Your task to perform on an android device: allow notifications from all sites in the chrome app Image 0: 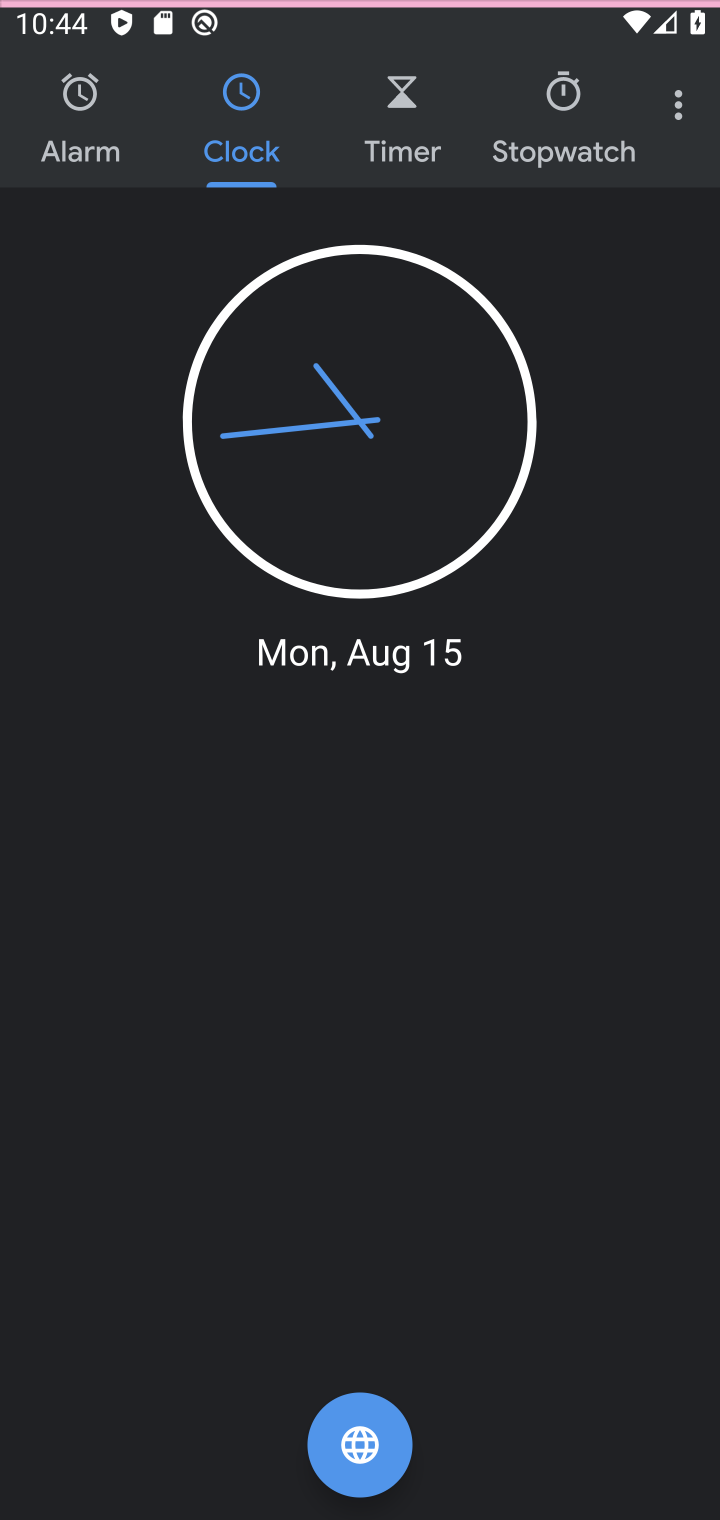
Step 0: press home button
Your task to perform on an android device: allow notifications from all sites in the chrome app Image 1: 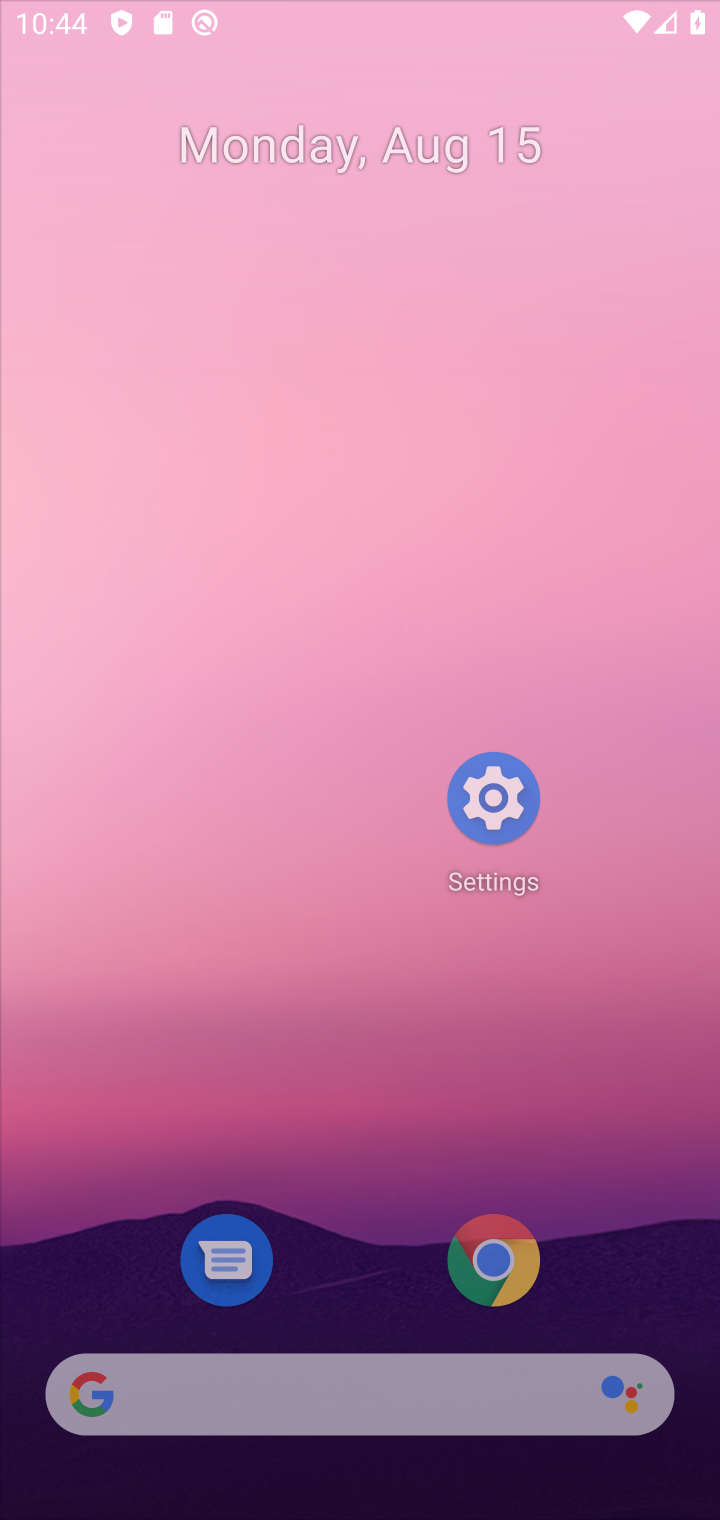
Step 1: press home button
Your task to perform on an android device: allow notifications from all sites in the chrome app Image 2: 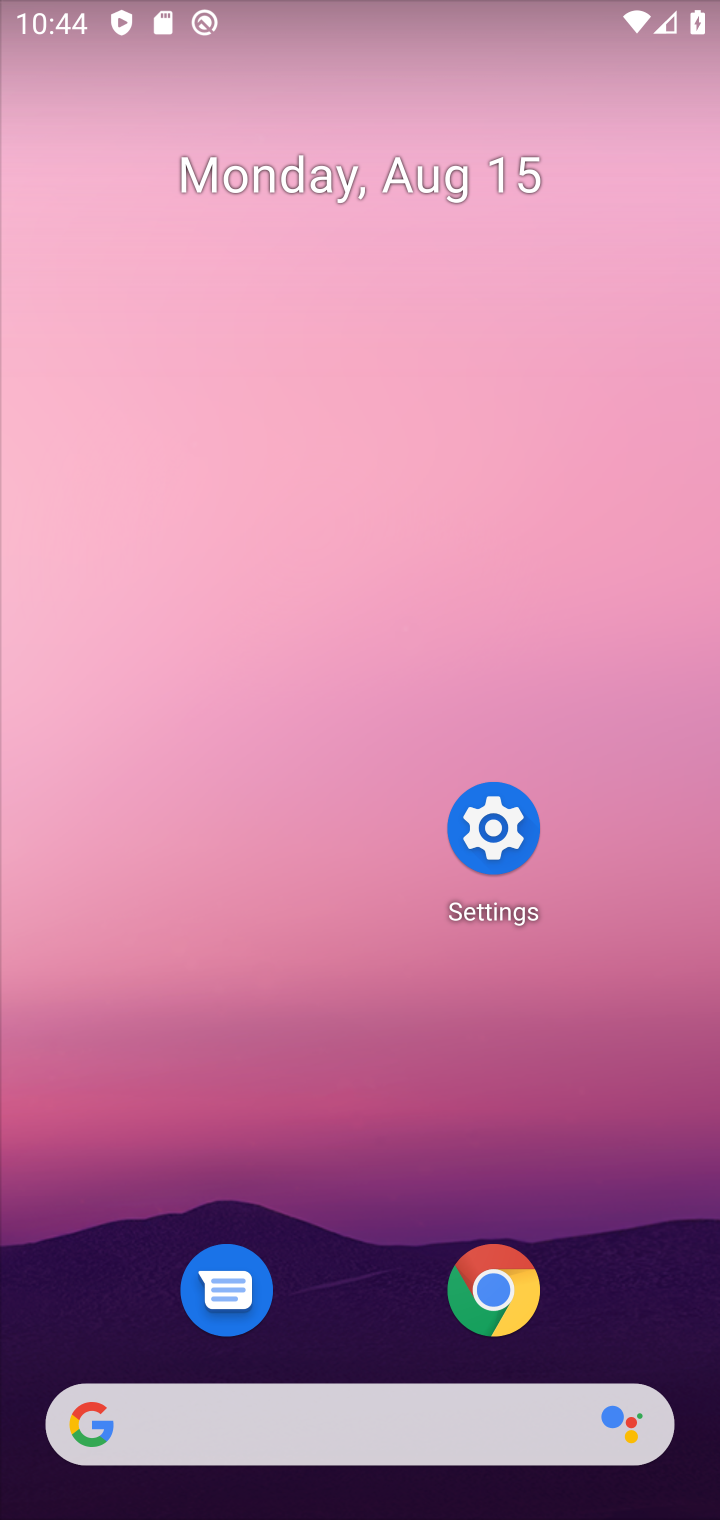
Step 2: click (509, 1282)
Your task to perform on an android device: allow notifications from all sites in the chrome app Image 3: 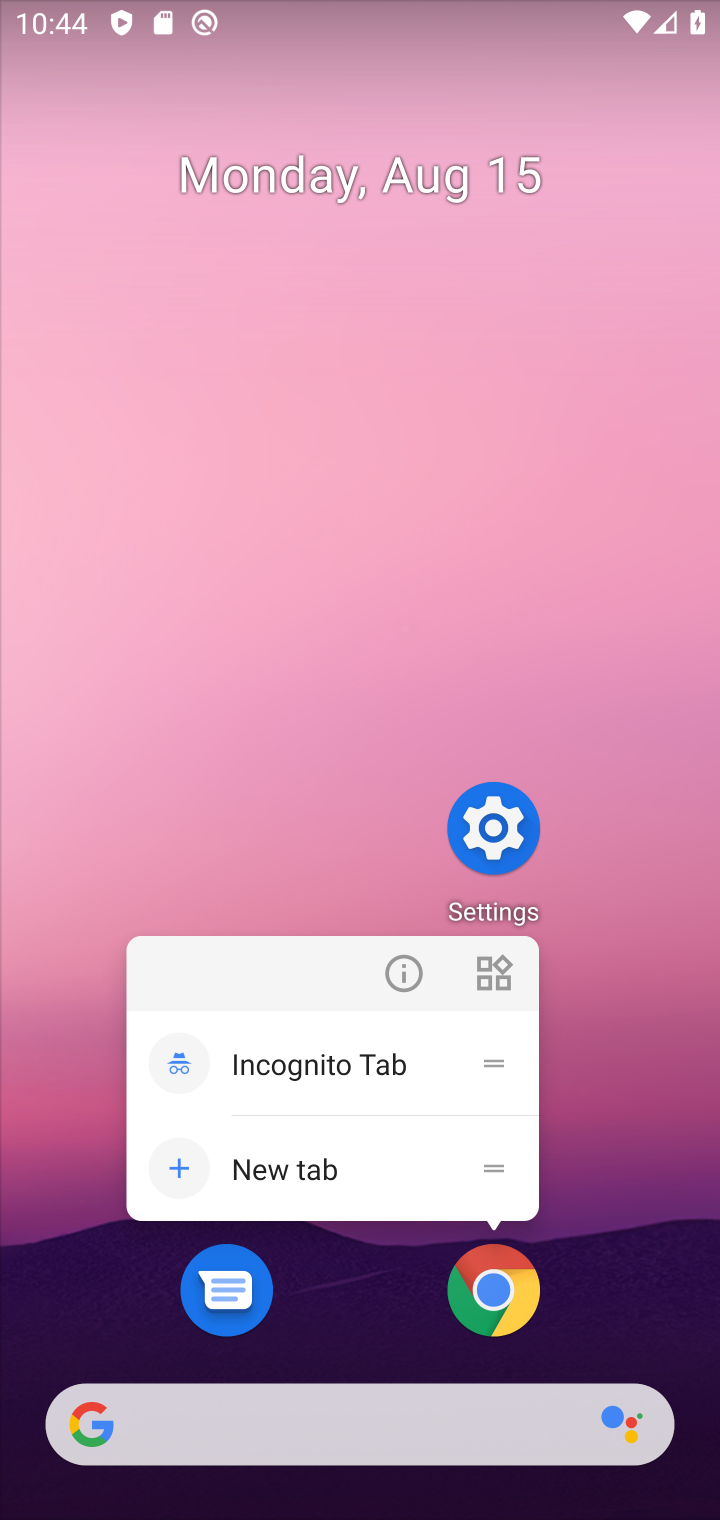
Step 3: click (509, 1282)
Your task to perform on an android device: allow notifications from all sites in the chrome app Image 4: 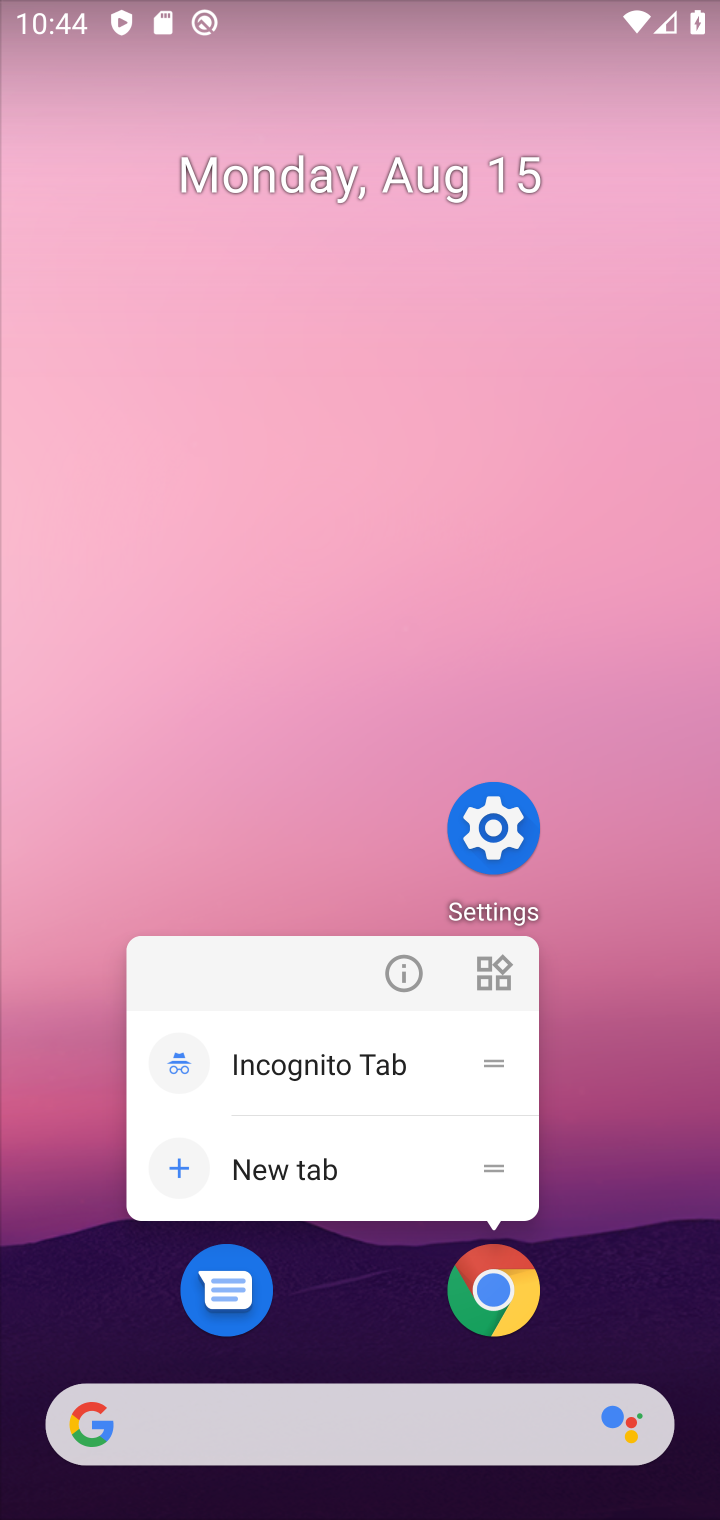
Step 4: click (460, 1289)
Your task to perform on an android device: allow notifications from all sites in the chrome app Image 5: 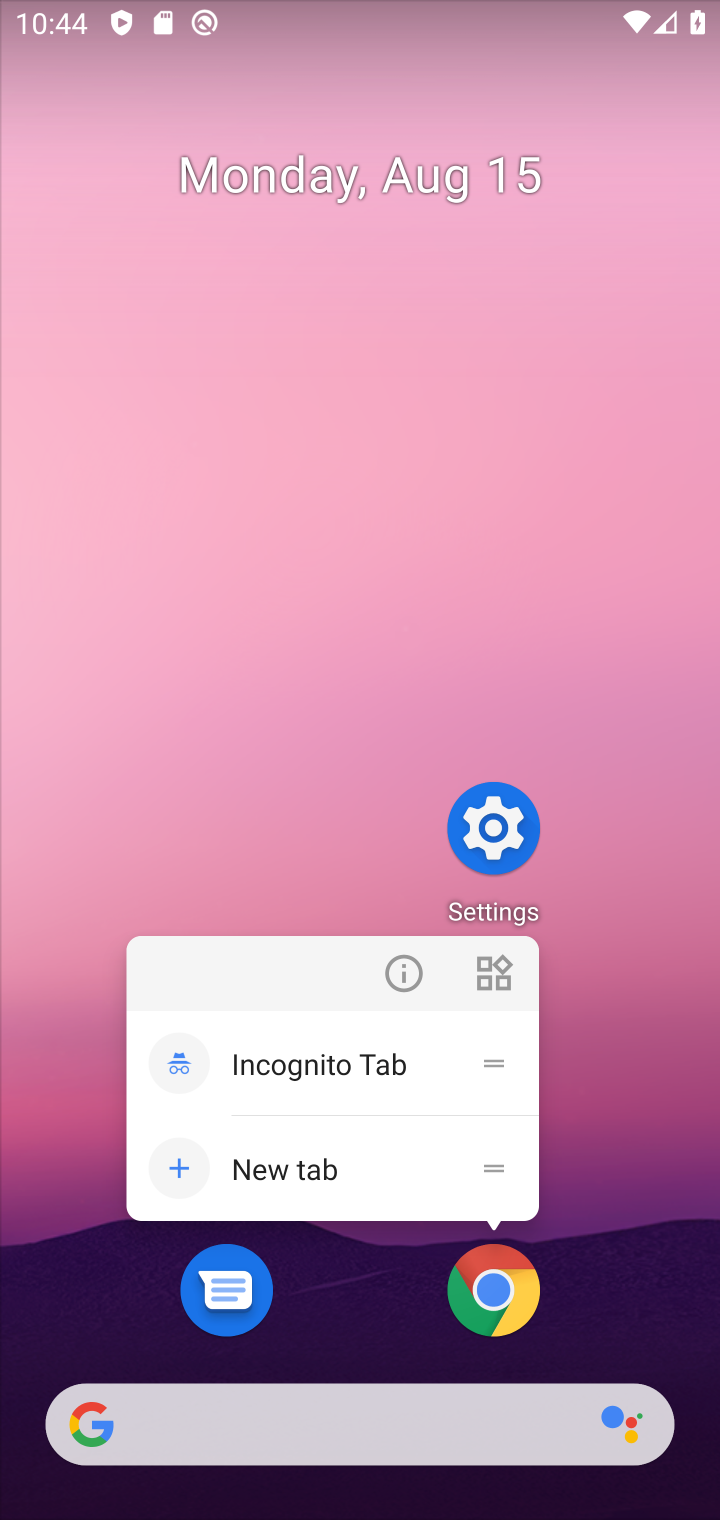
Step 5: click (475, 1291)
Your task to perform on an android device: allow notifications from all sites in the chrome app Image 6: 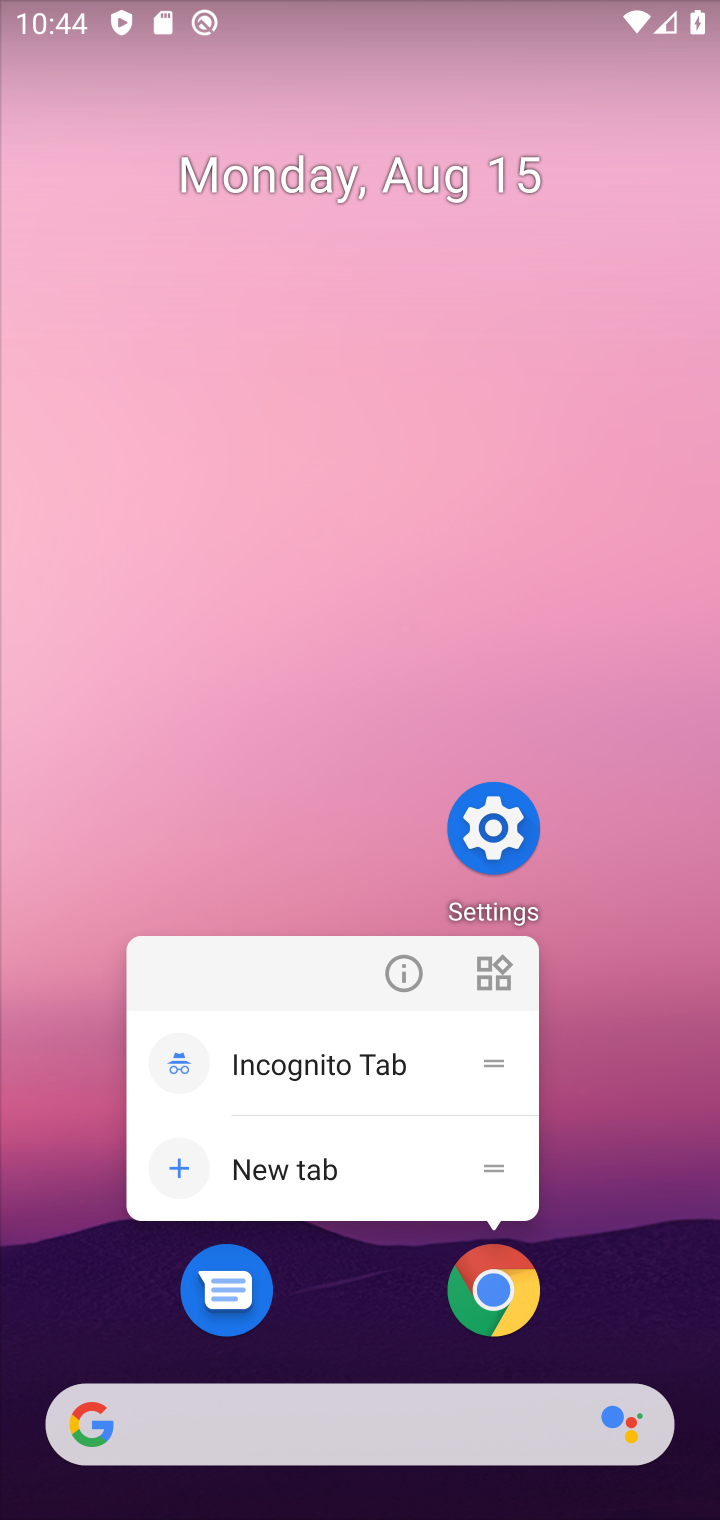
Step 6: click (475, 1291)
Your task to perform on an android device: allow notifications from all sites in the chrome app Image 7: 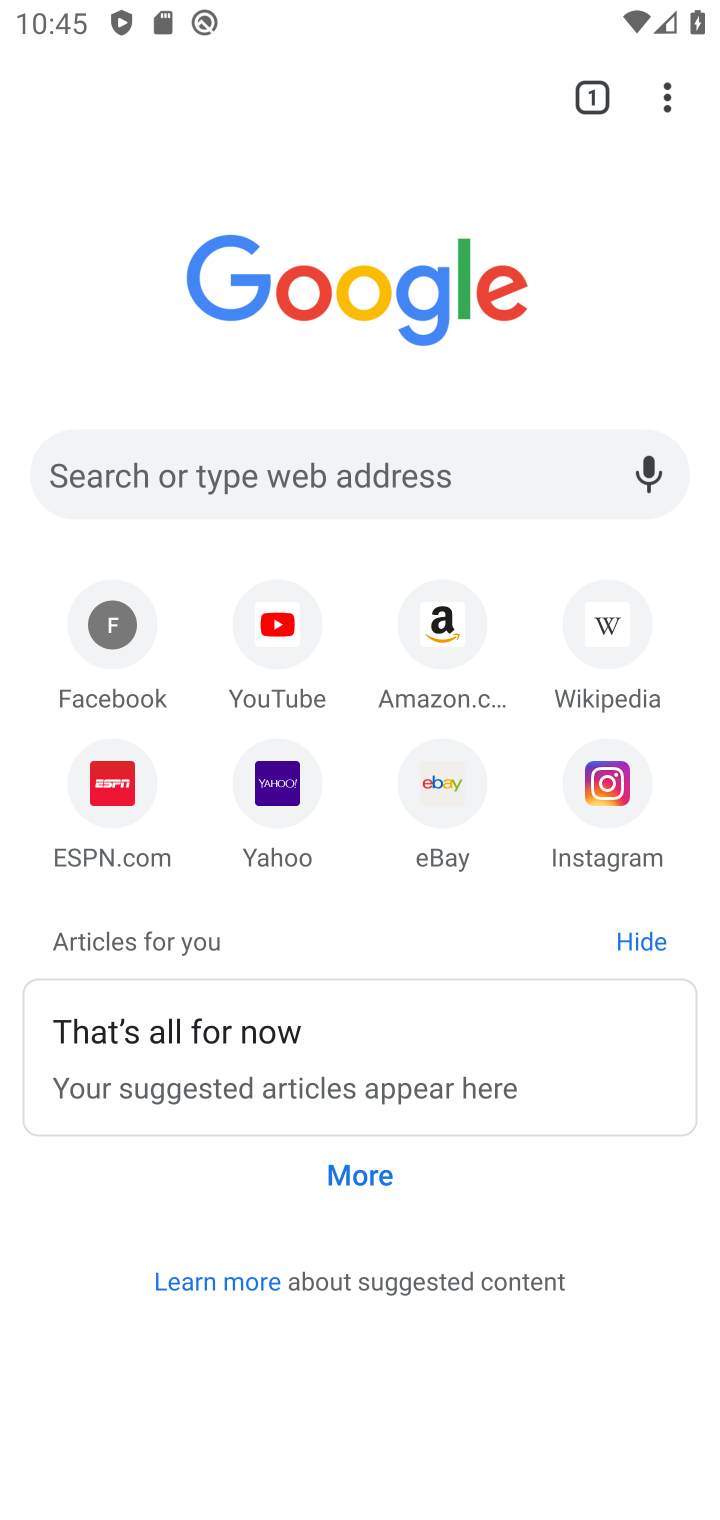
Step 7: drag from (662, 94) to (365, 829)
Your task to perform on an android device: allow notifications from all sites in the chrome app Image 8: 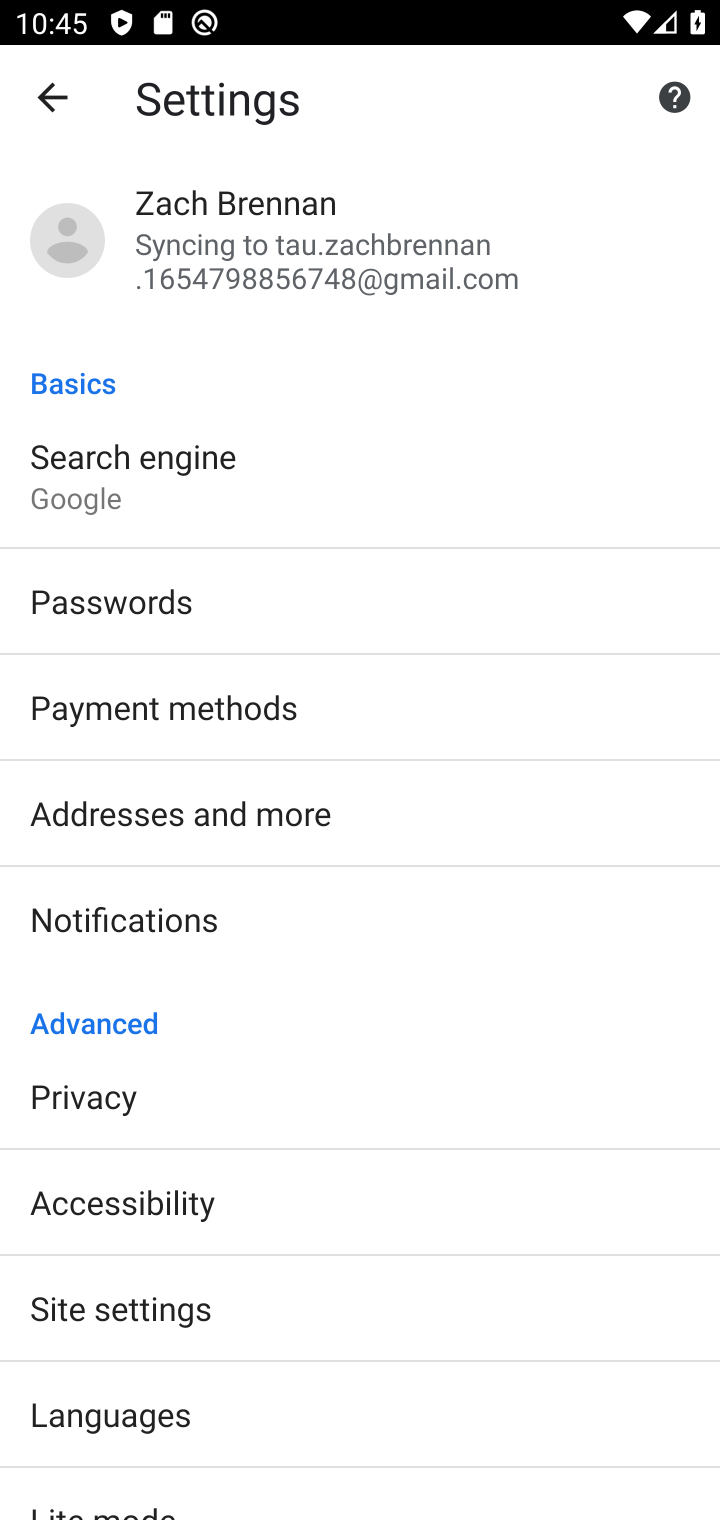
Step 8: drag from (227, 1339) to (564, 199)
Your task to perform on an android device: allow notifications from all sites in the chrome app Image 9: 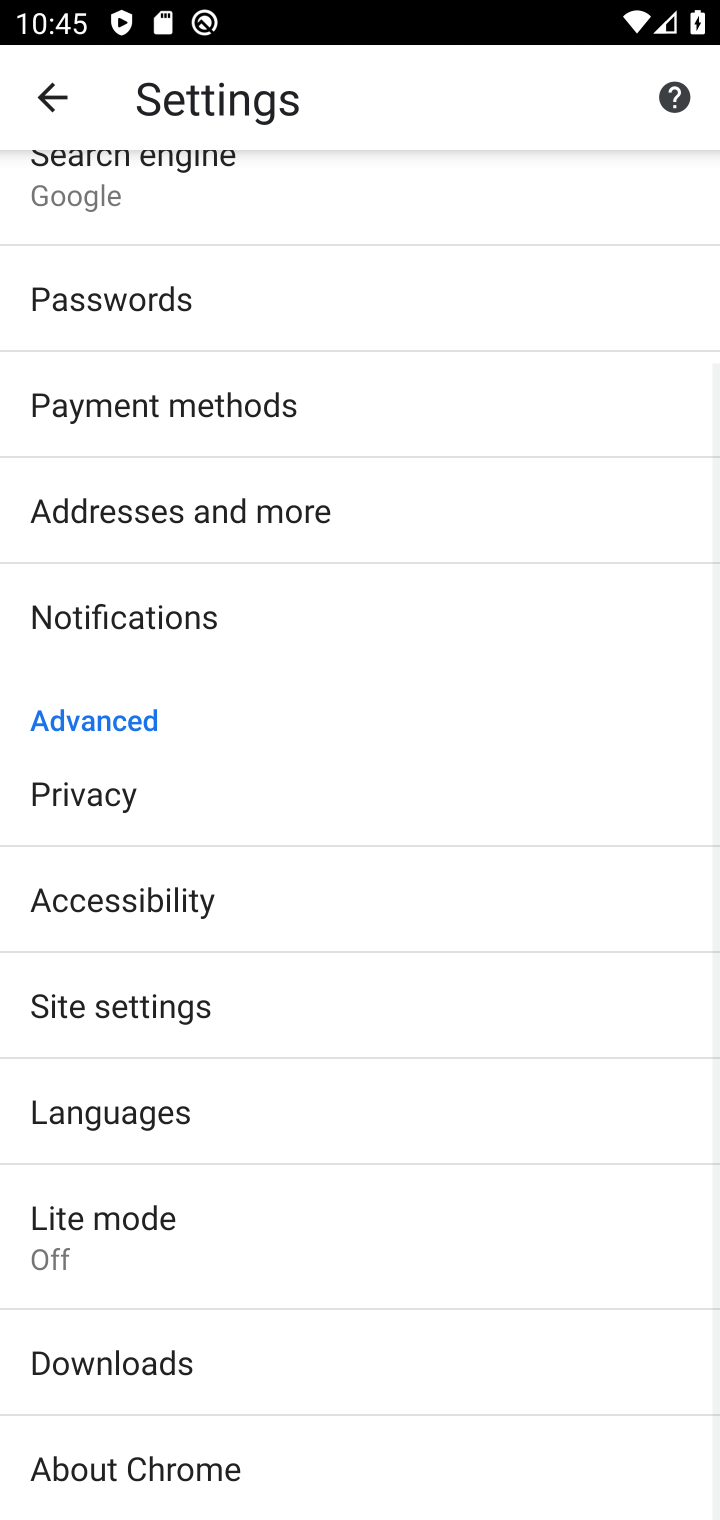
Step 9: click (162, 1001)
Your task to perform on an android device: allow notifications from all sites in the chrome app Image 10: 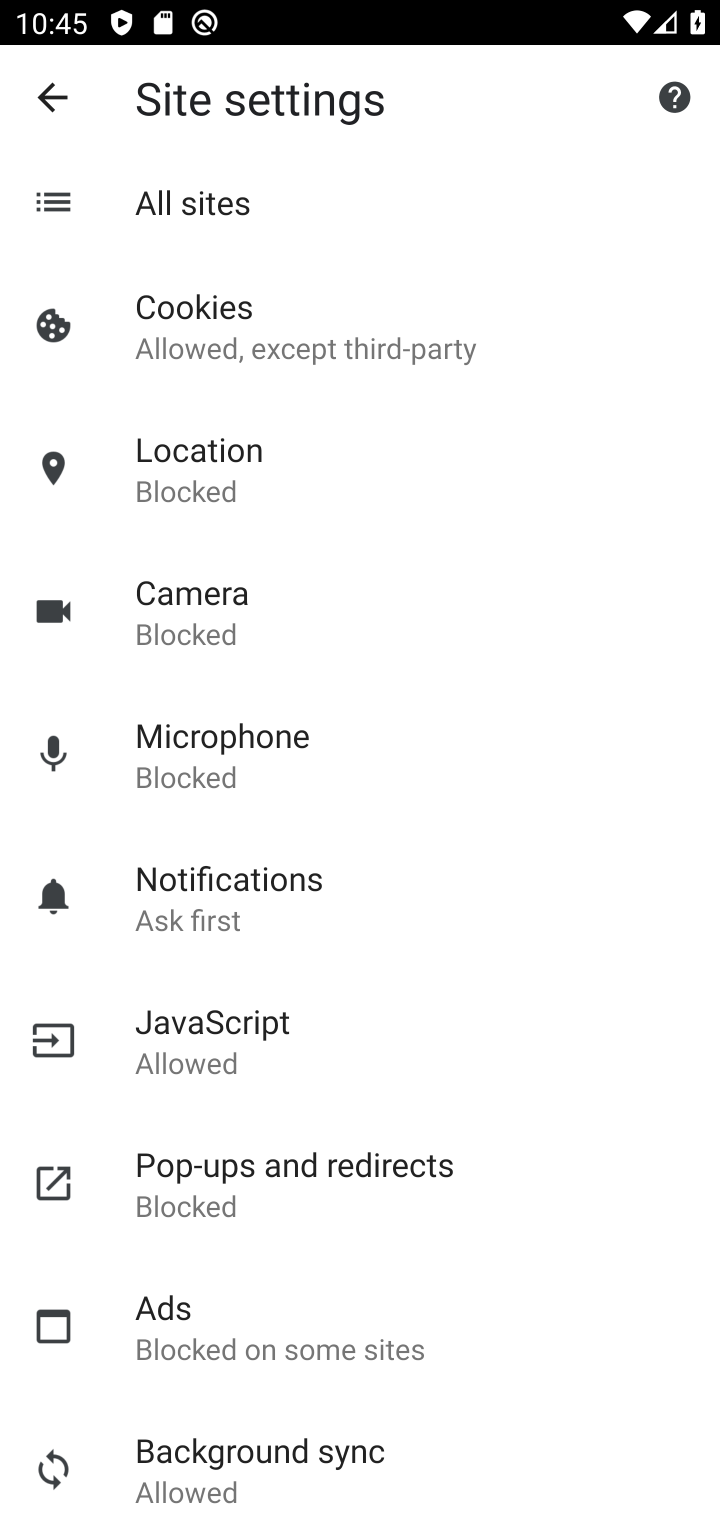
Step 10: click (300, 884)
Your task to perform on an android device: allow notifications from all sites in the chrome app Image 11: 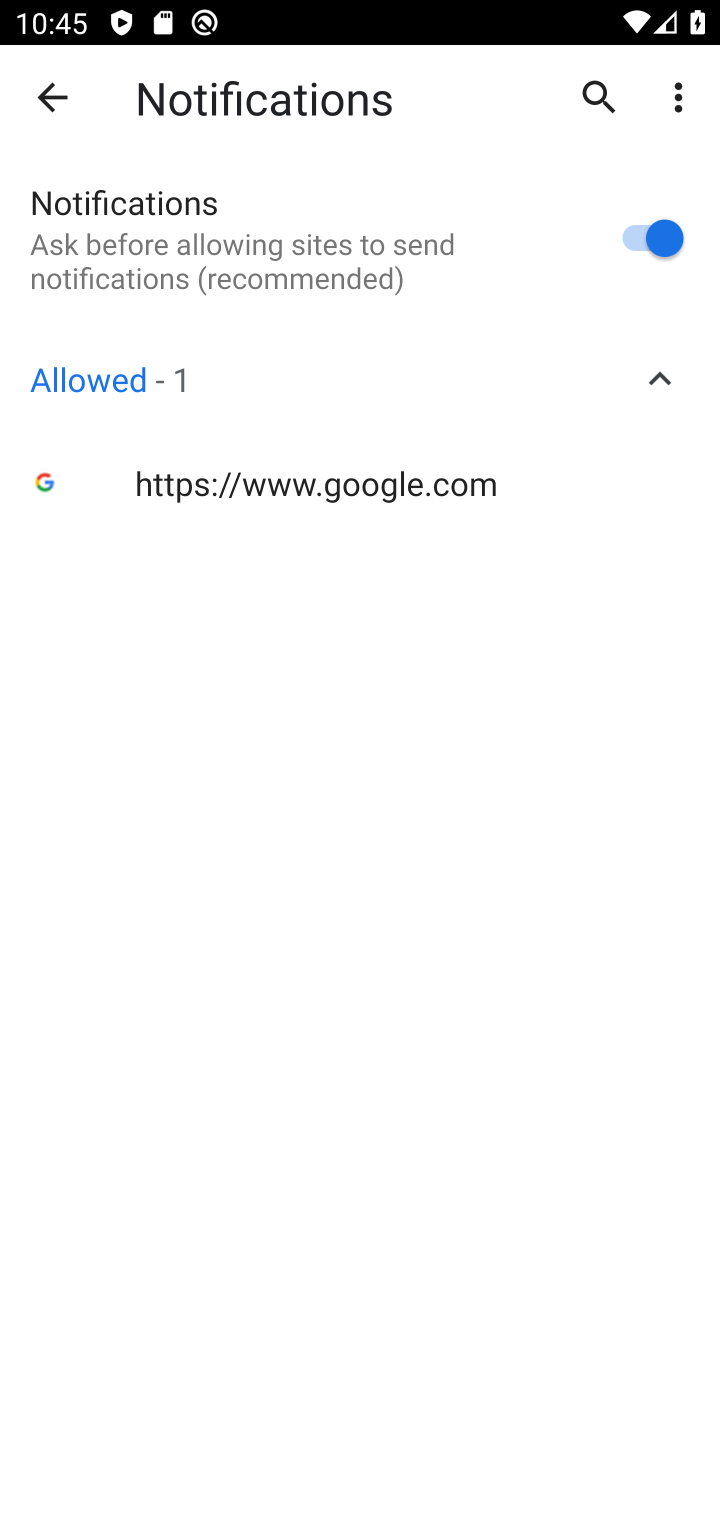
Step 11: task complete